Your task to perform on an android device: all mails in gmail Image 0: 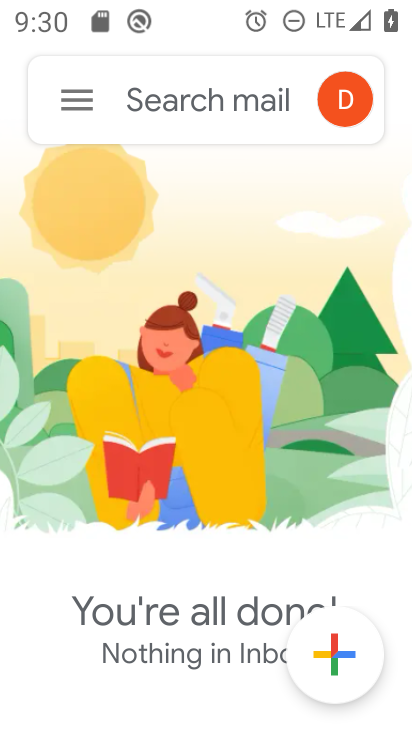
Step 0: press home button
Your task to perform on an android device: all mails in gmail Image 1: 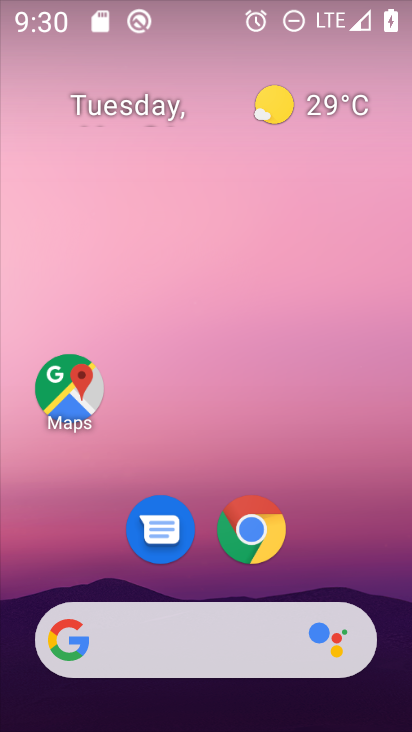
Step 1: drag from (390, 635) to (256, 45)
Your task to perform on an android device: all mails in gmail Image 2: 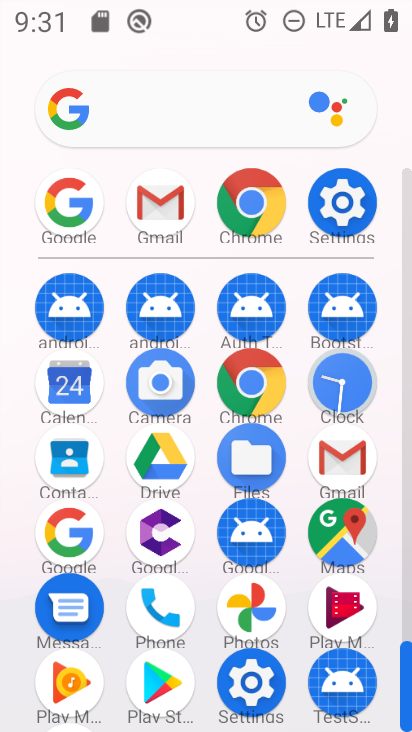
Step 2: click (359, 461)
Your task to perform on an android device: all mails in gmail Image 3: 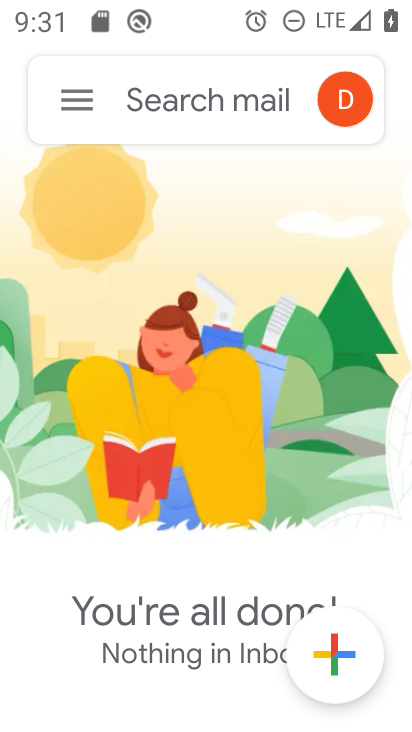
Step 3: click (55, 106)
Your task to perform on an android device: all mails in gmail Image 4: 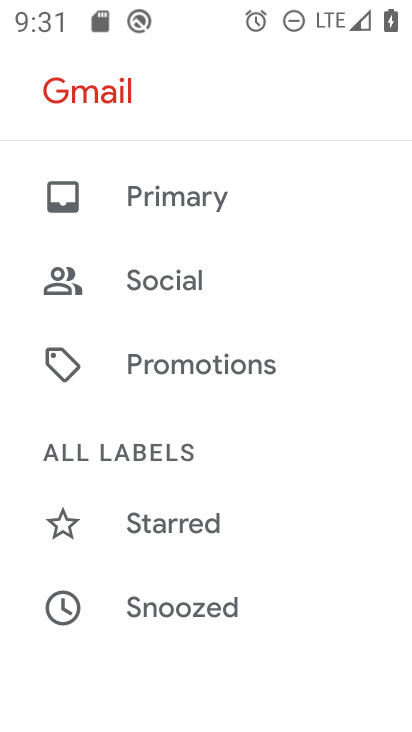
Step 4: drag from (158, 632) to (235, 131)
Your task to perform on an android device: all mails in gmail Image 5: 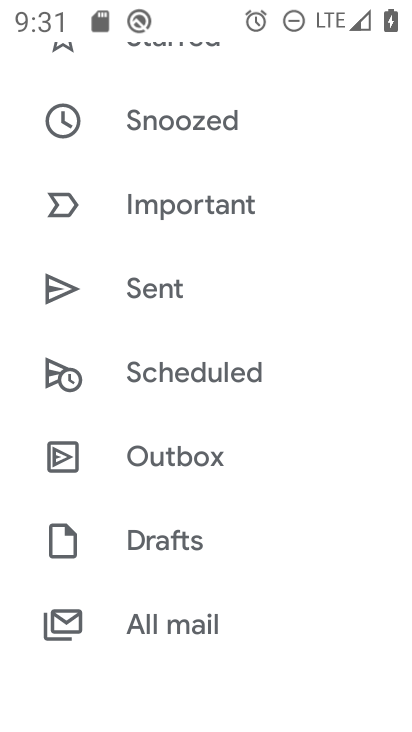
Step 5: drag from (198, 626) to (281, 78)
Your task to perform on an android device: all mails in gmail Image 6: 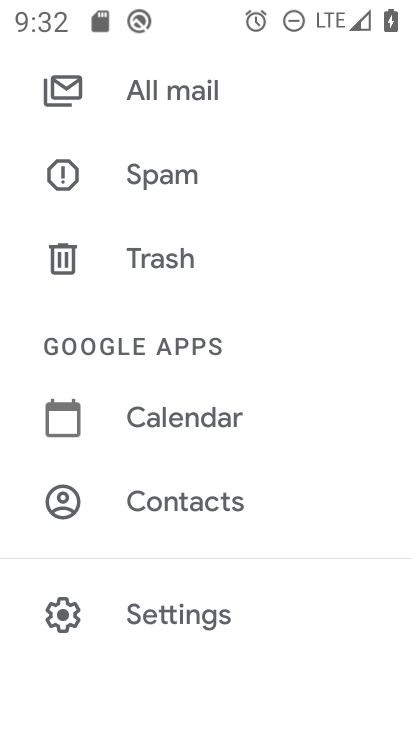
Step 6: click (181, 98)
Your task to perform on an android device: all mails in gmail Image 7: 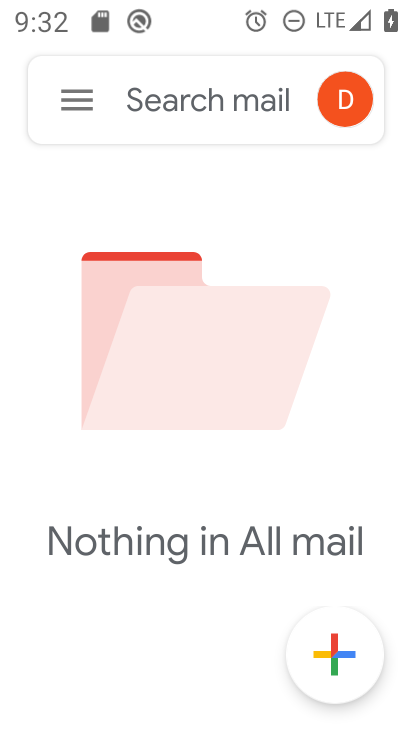
Step 7: task complete